Your task to perform on an android device: Check the news Image 0: 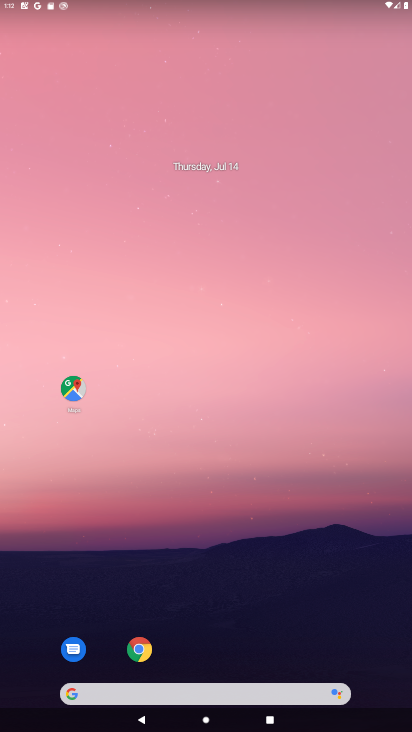
Step 0: drag from (276, 632) to (303, 42)
Your task to perform on an android device: Check the news Image 1: 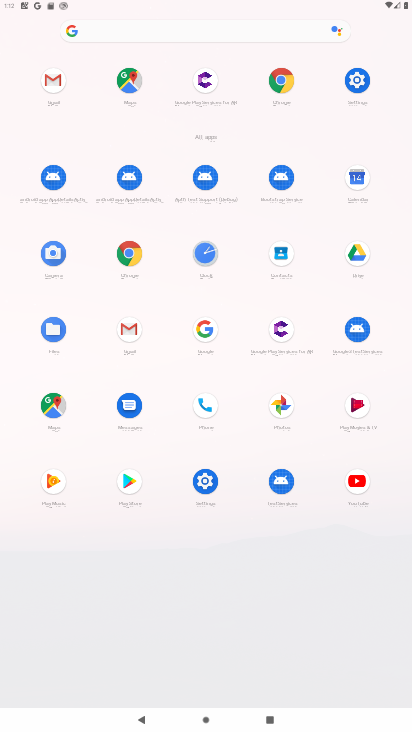
Step 1: click (129, 251)
Your task to perform on an android device: Check the news Image 2: 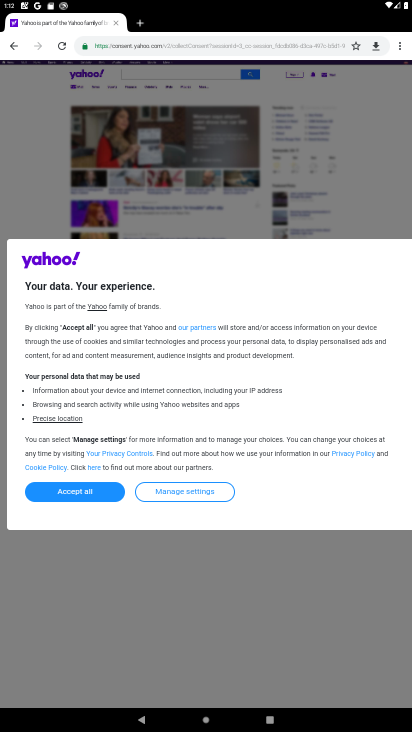
Step 2: click (279, 43)
Your task to perform on an android device: Check the news Image 3: 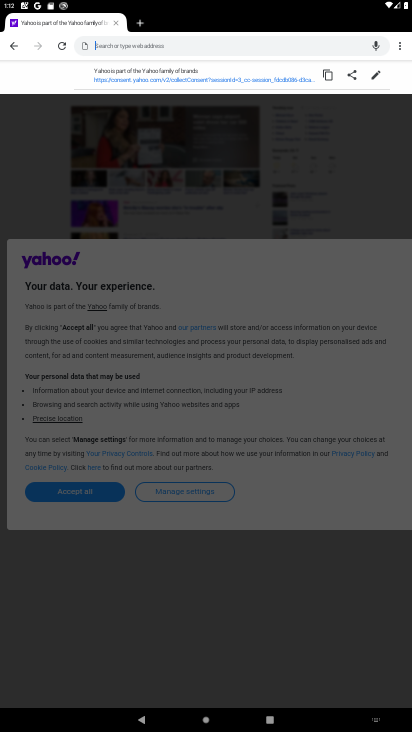
Step 3: type "check the news"
Your task to perform on an android device: Check the news Image 4: 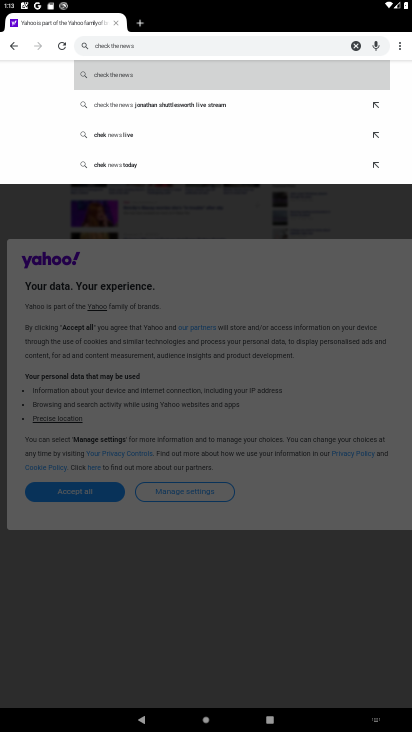
Step 4: click (182, 82)
Your task to perform on an android device: Check the news Image 5: 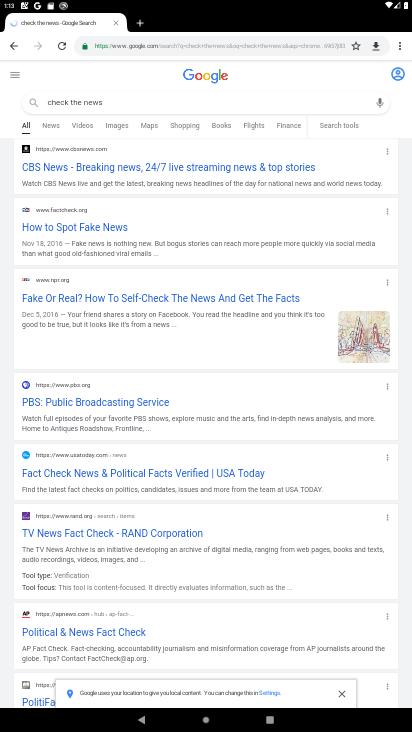
Step 5: task complete